Your task to perform on an android device: Go to wifi settings Image 0: 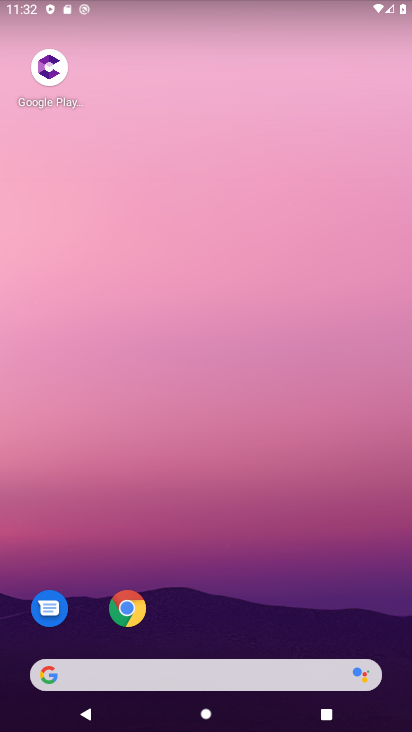
Step 0: drag from (296, 721) to (214, 35)
Your task to perform on an android device: Go to wifi settings Image 1: 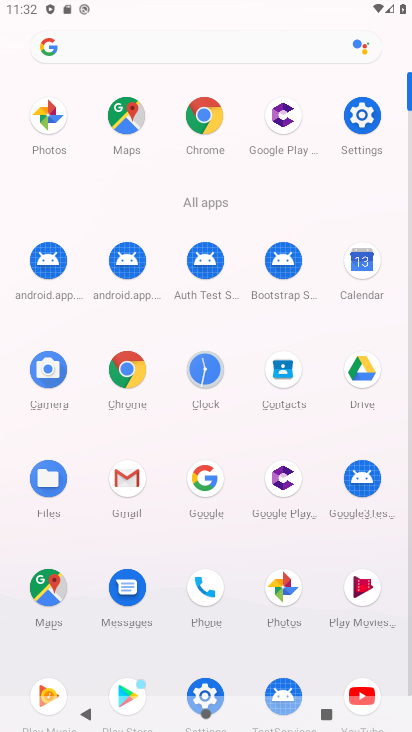
Step 1: click (368, 118)
Your task to perform on an android device: Go to wifi settings Image 2: 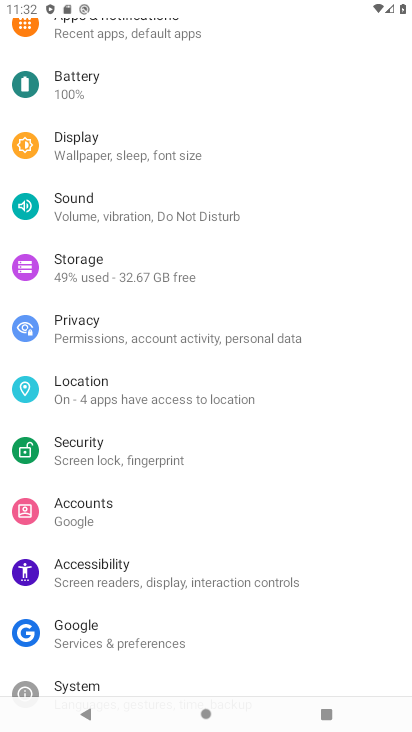
Step 2: drag from (271, 157) to (198, 669)
Your task to perform on an android device: Go to wifi settings Image 3: 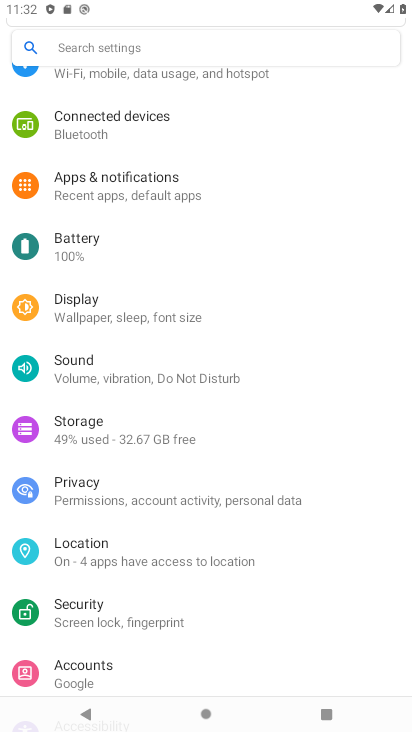
Step 3: drag from (287, 210) to (224, 678)
Your task to perform on an android device: Go to wifi settings Image 4: 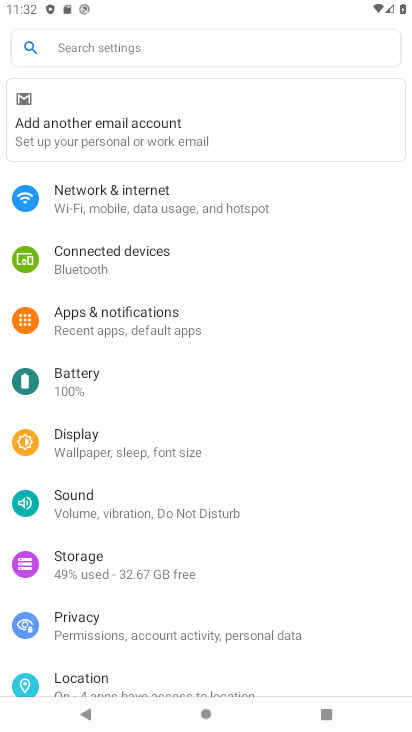
Step 4: click (228, 201)
Your task to perform on an android device: Go to wifi settings Image 5: 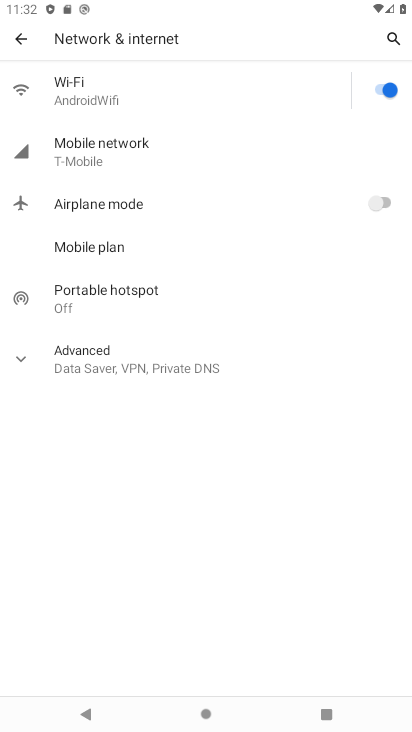
Step 5: click (179, 90)
Your task to perform on an android device: Go to wifi settings Image 6: 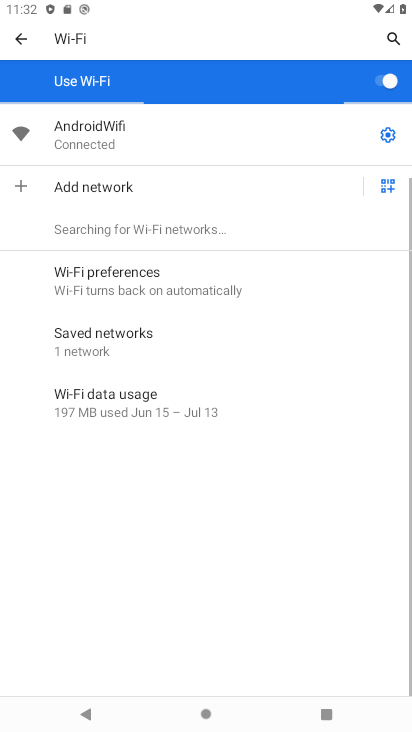
Step 6: click (388, 136)
Your task to perform on an android device: Go to wifi settings Image 7: 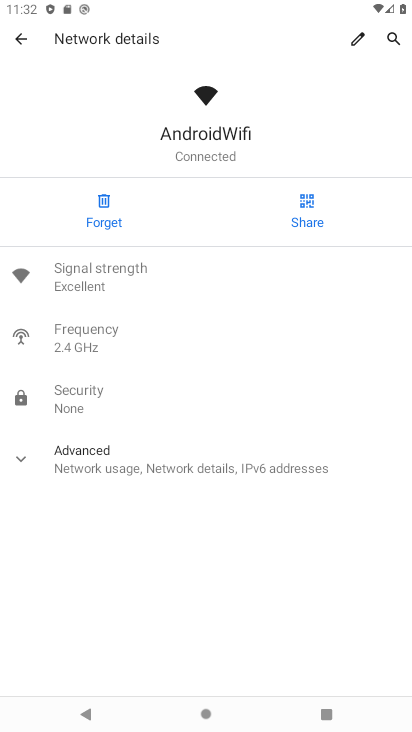
Step 7: task complete